Your task to perform on an android device: Go to Amazon Image 0: 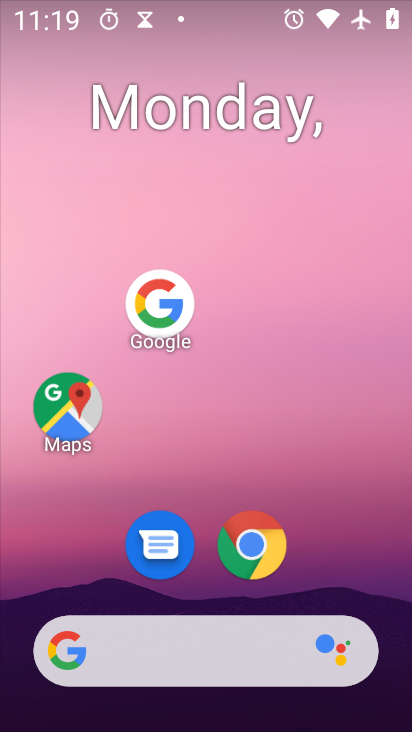
Step 0: press home button
Your task to perform on an android device: Go to Amazon Image 1: 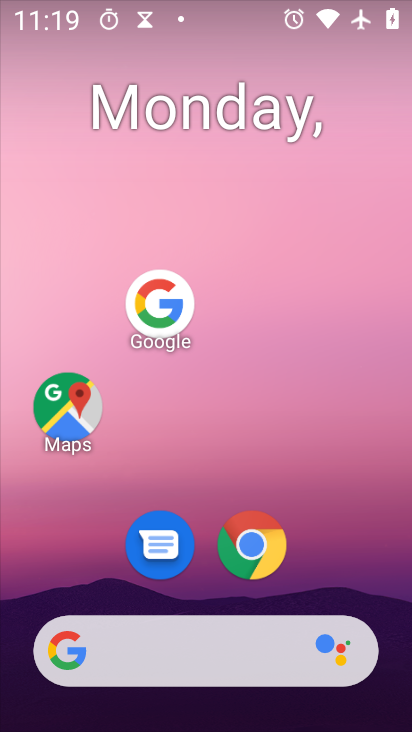
Step 1: click (247, 569)
Your task to perform on an android device: Go to Amazon Image 2: 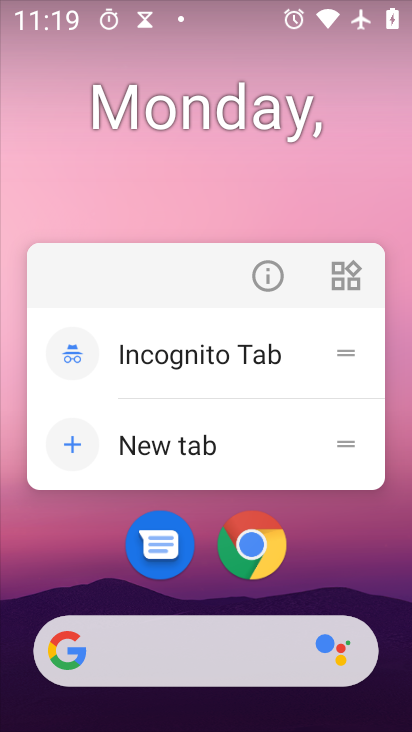
Step 2: click (255, 557)
Your task to perform on an android device: Go to Amazon Image 3: 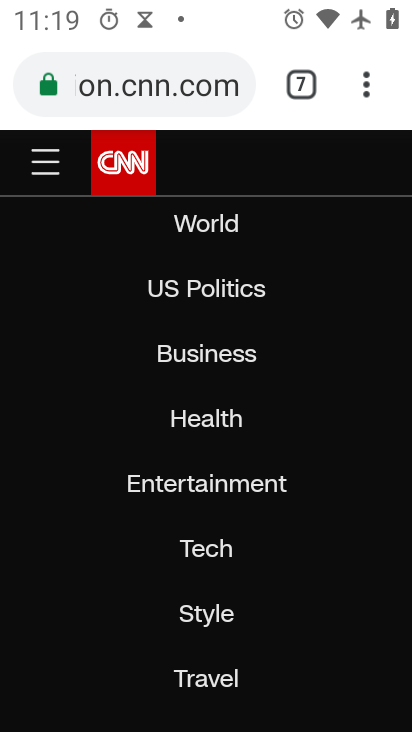
Step 3: drag from (367, 102) to (230, 178)
Your task to perform on an android device: Go to Amazon Image 4: 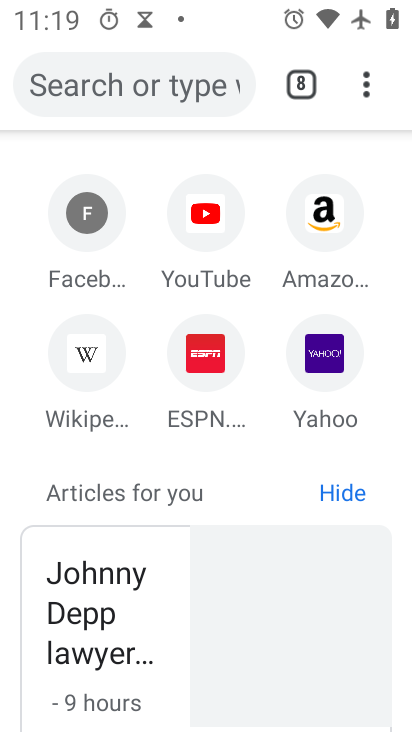
Step 4: click (318, 215)
Your task to perform on an android device: Go to Amazon Image 5: 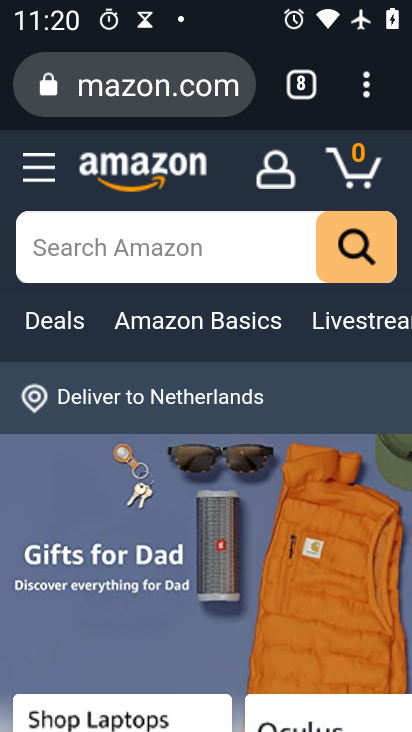
Step 5: task complete